Your task to perform on an android device: change notifications settings Image 0: 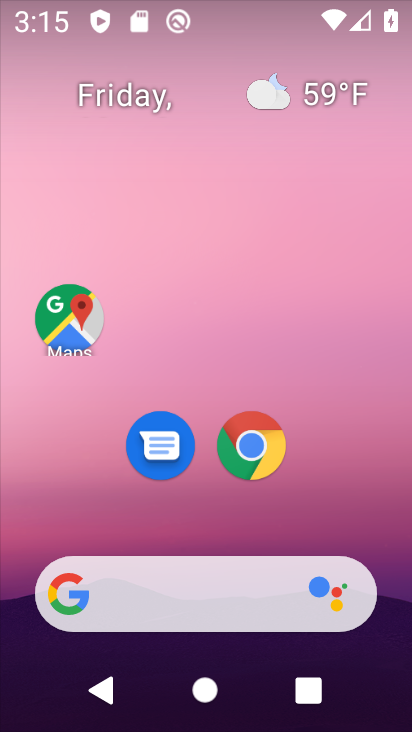
Step 0: drag from (402, 598) to (325, 87)
Your task to perform on an android device: change notifications settings Image 1: 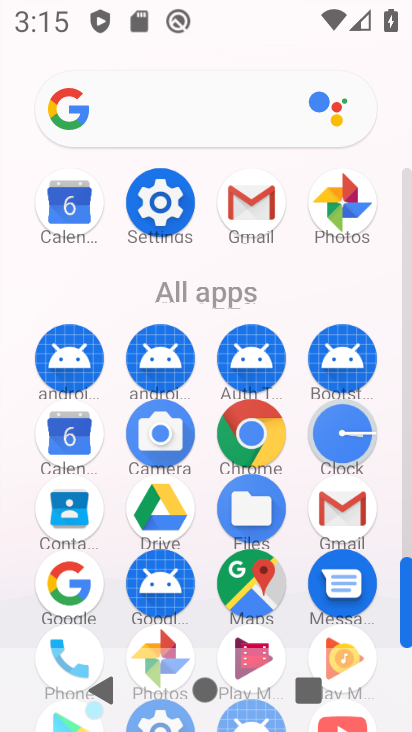
Step 1: click (407, 543)
Your task to perform on an android device: change notifications settings Image 2: 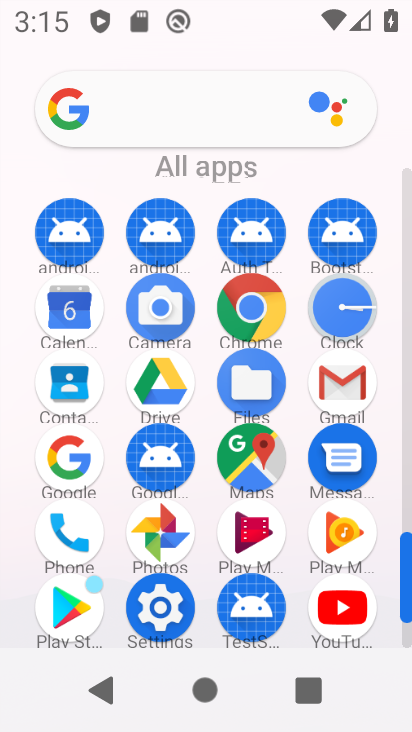
Step 2: click (159, 604)
Your task to perform on an android device: change notifications settings Image 3: 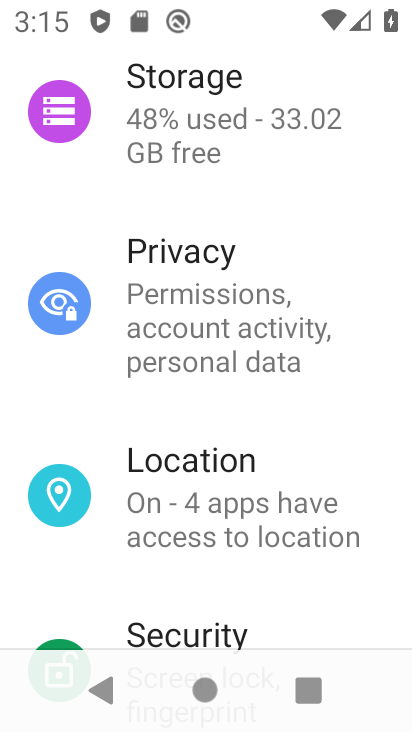
Step 3: drag from (353, 255) to (373, 518)
Your task to perform on an android device: change notifications settings Image 4: 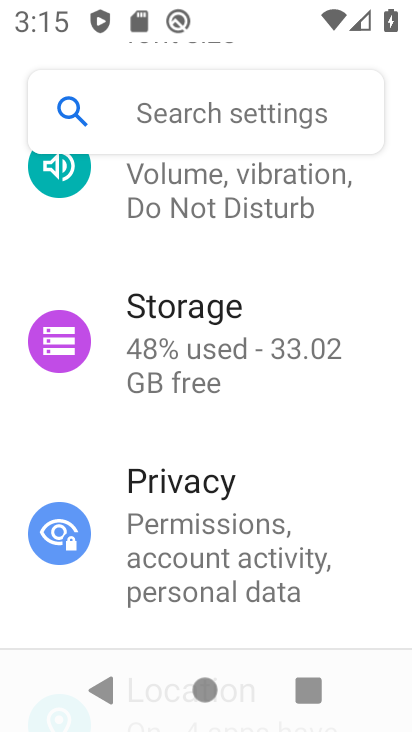
Step 4: drag from (359, 250) to (315, 507)
Your task to perform on an android device: change notifications settings Image 5: 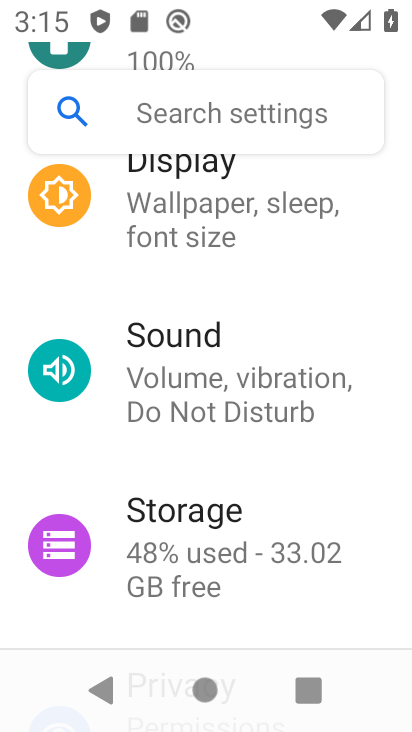
Step 5: drag from (346, 251) to (336, 520)
Your task to perform on an android device: change notifications settings Image 6: 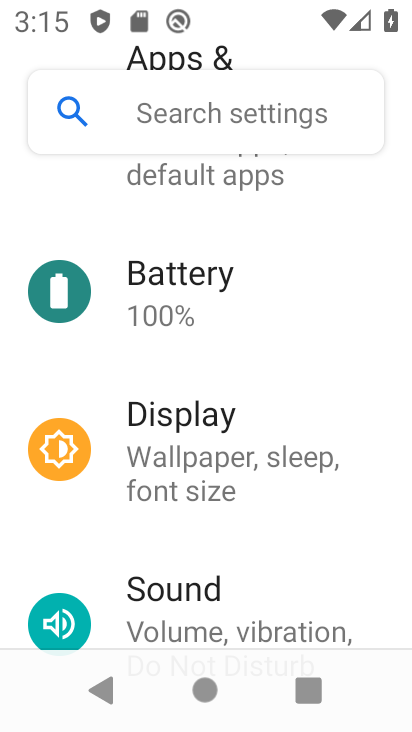
Step 6: drag from (308, 264) to (288, 483)
Your task to perform on an android device: change notifications settings Image 7: 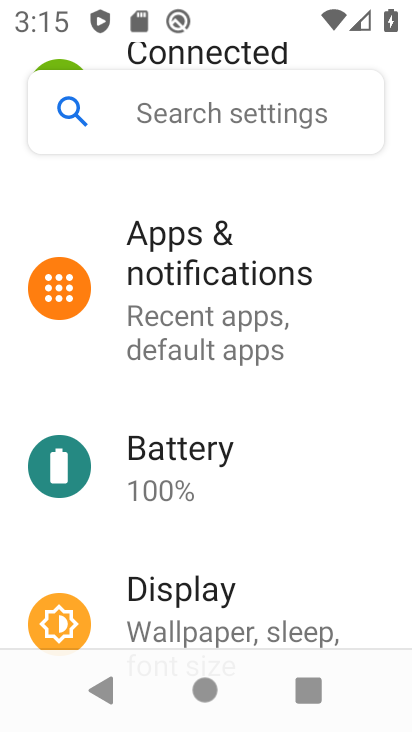
Step 7: click (155, 269)
Your task to perform on an android device: change notifications settings Image 8: 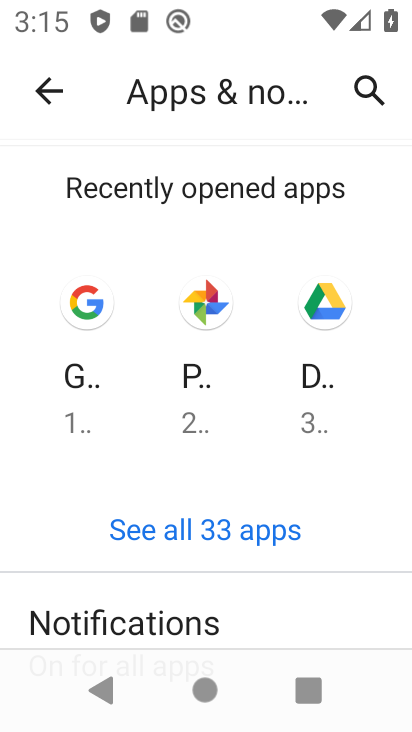
Step 8: drag from (311, 599) to (305, 188)
Your task to perform on an android device: change notifications settings Image 9: 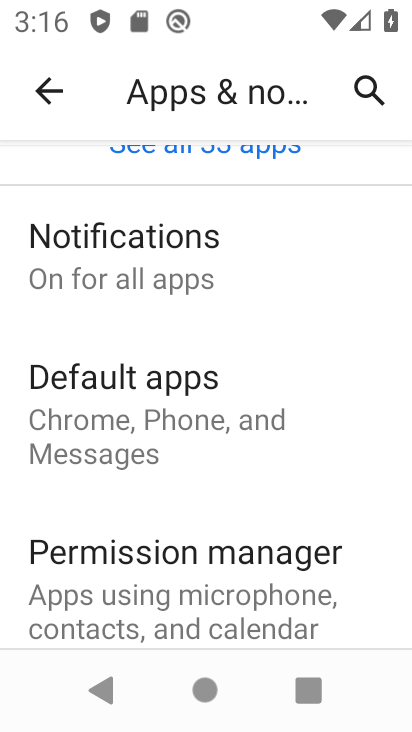
Step 9: click (131, 260)
Your task to perform on an android device: change notifications settings Image 10: 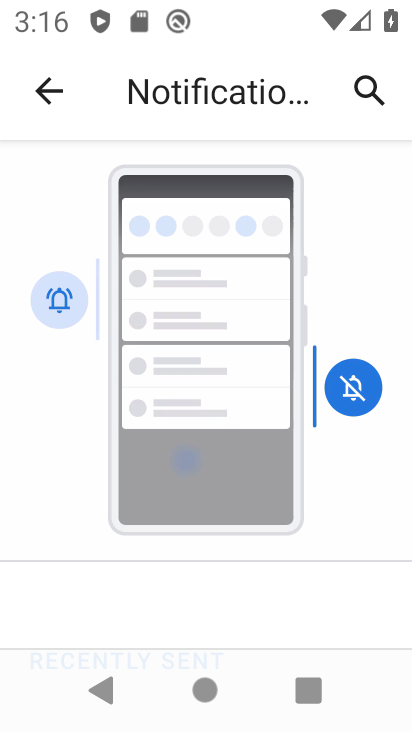
Step 10: drag from (281, 634) to (230, 244)
Your task to perform on an android device: change notifications settings Image 11: 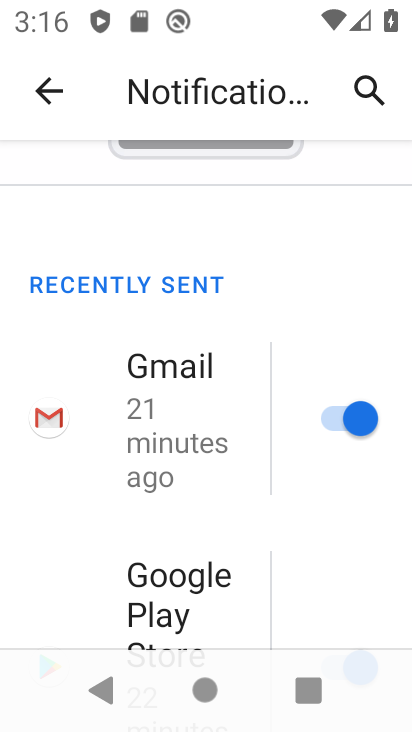
Step 11: drag from (258, 603) to (228, 136)
Your task to perform on an android device: change notifications settings Image 12: 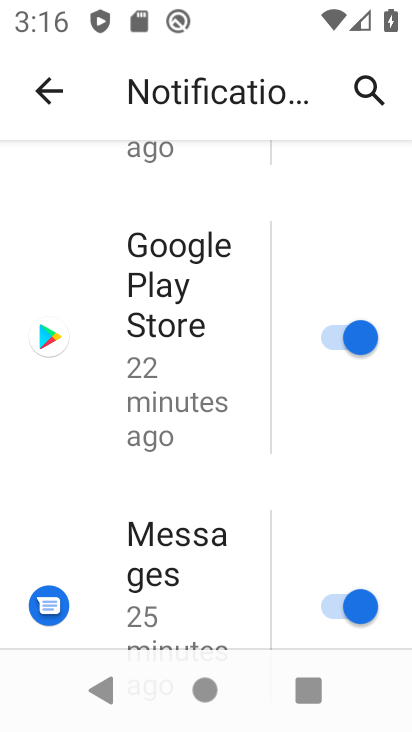
Step 12: drag from (287, 616) to (235, 78)
Your task to perform on an android device: change notifications settings Image 13: 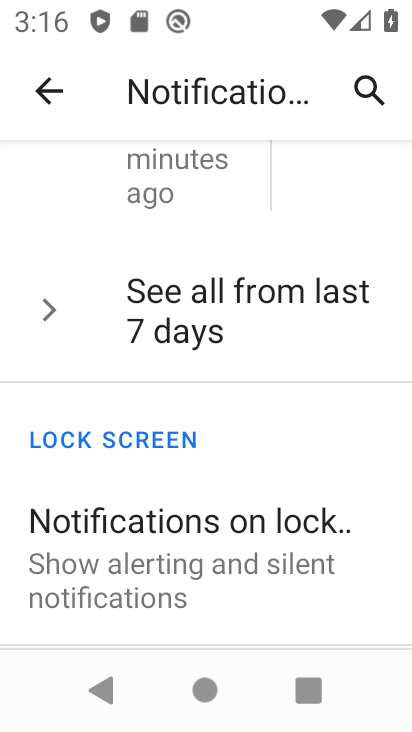
Step 13: drag from (250, 564) to (206, 182)
Your task to perform on an android device: change notifications settings Image 14: 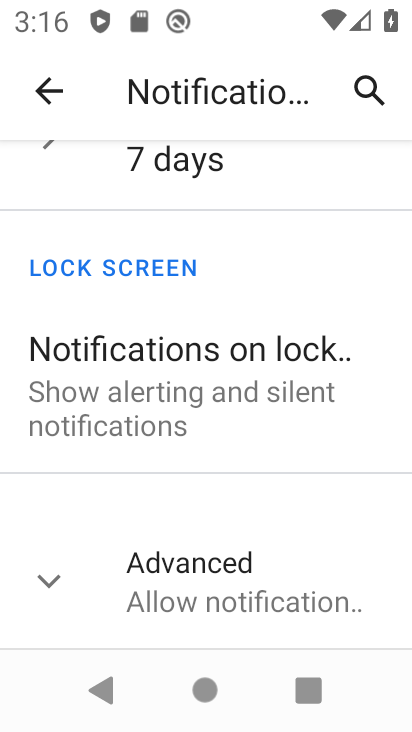
Step 14: click (51, 589)
Your task to perform on an android device: change notifications settings Image 15: 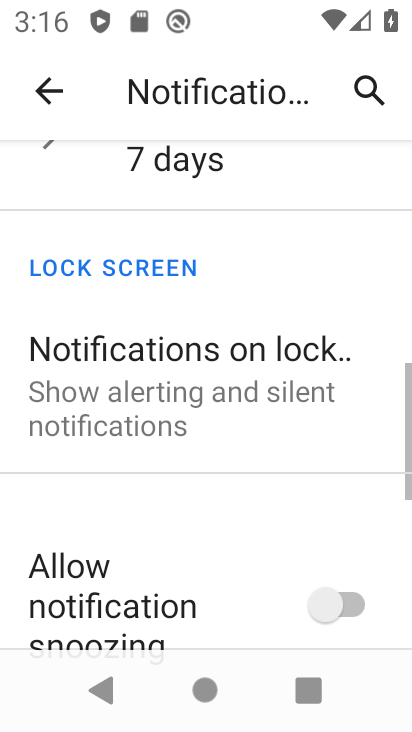
Step 15: drag from (317, 561) to (261, 205)
Your task to perform on an android device: change notifications settings Image 16: 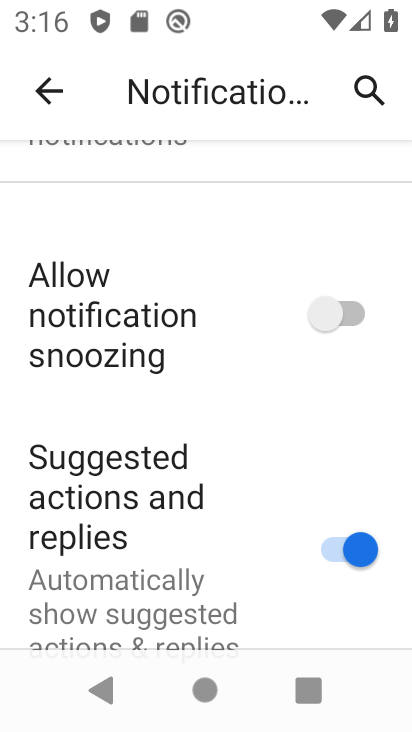
Step 16: click (351, 310)
Your task to perform on an android device: change notifications settings Image 17: 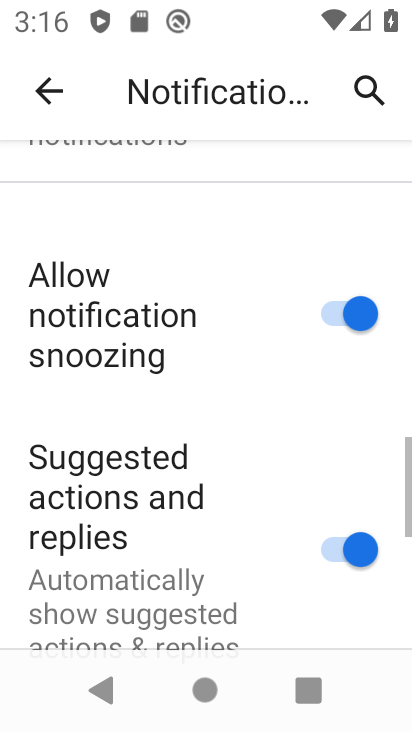
Step 17: click (333, 551)
Your task to perform on an android device: change notifications settings Image 18: 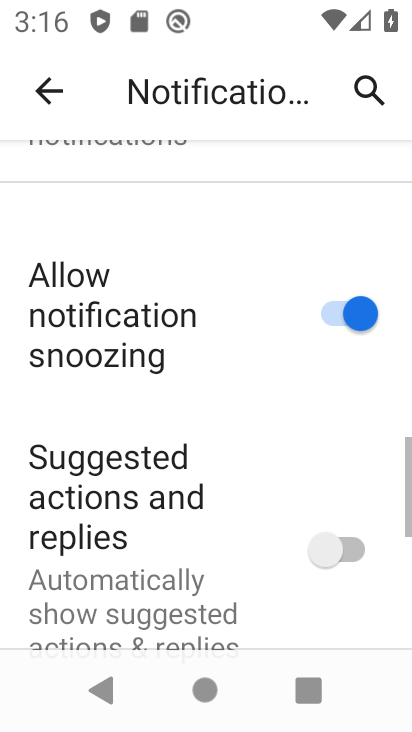
Step 18: drag from (239, 591) to (173, 110)
Your task to perform on an android device: change notifications settings Image 19: 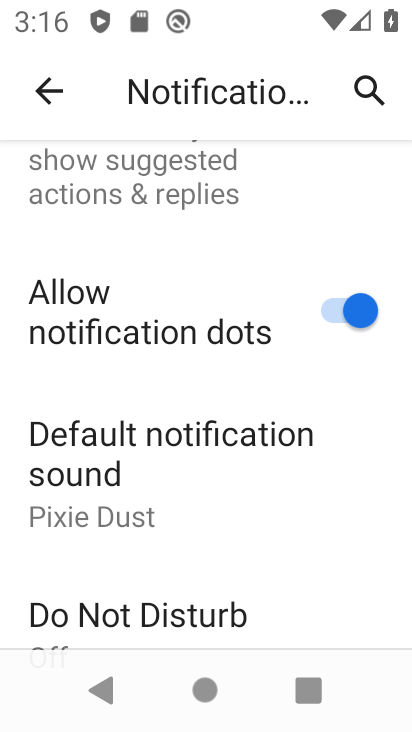
Step 19: click (330, 314)
Your task to perform on an android device: change notifications settings Image 20: 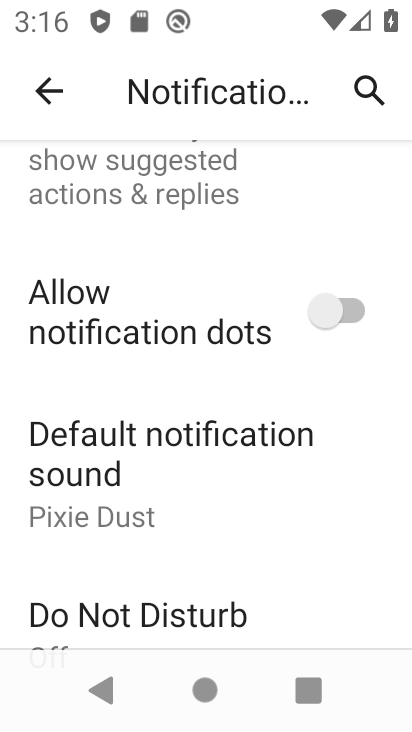
Step 20: task complete